Your task to perform on an android device: Toggle the flashlight Image 0: 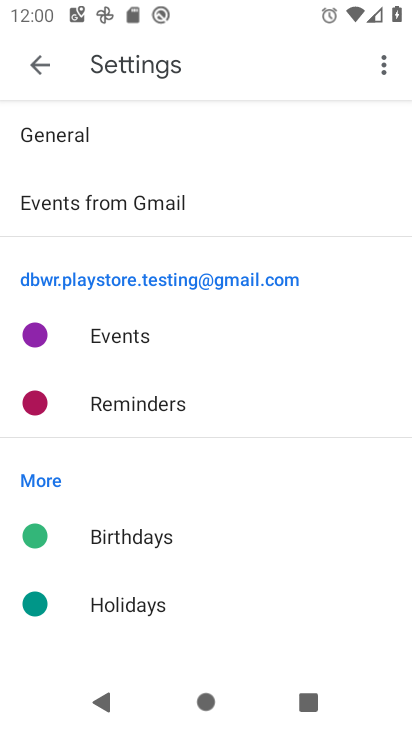
Step 0: press home button
Your task to perform on an android device: Toggle the flashlight Image 1: 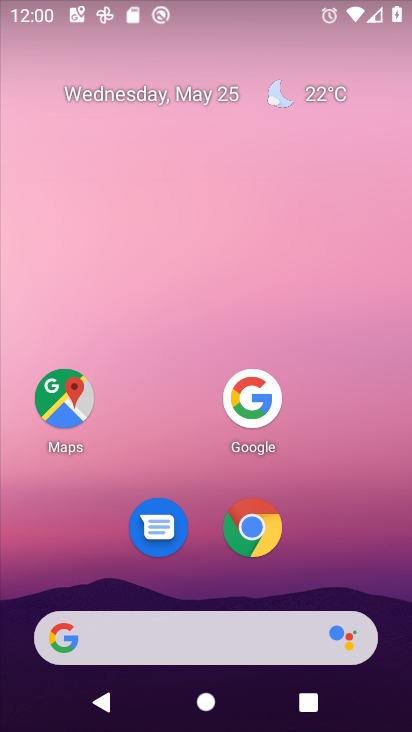
Step 1: task complete